Your task to perform on an android device: Do I have any events today? Image 0: 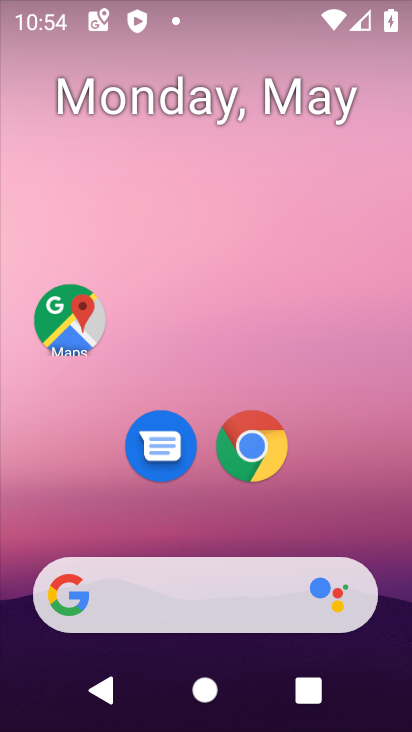
Step 0: drag from (251, 579) to (10, 32)
Your task to perform on an android device: Do I have any events today? Image 1: 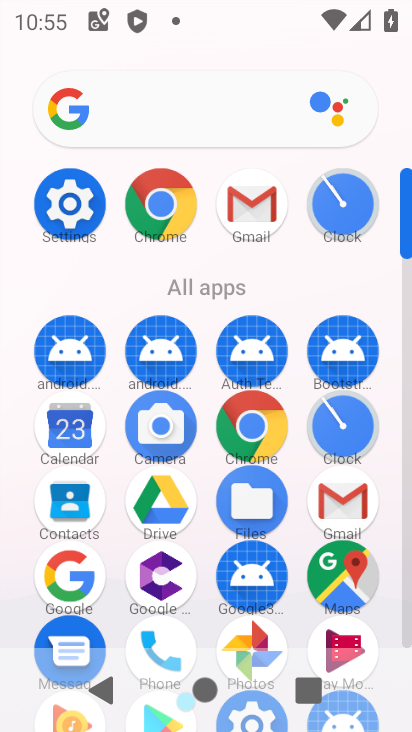
Step 1: click (71, 438)
Your task to perform on an android device: Do I have any events today? Image 2: 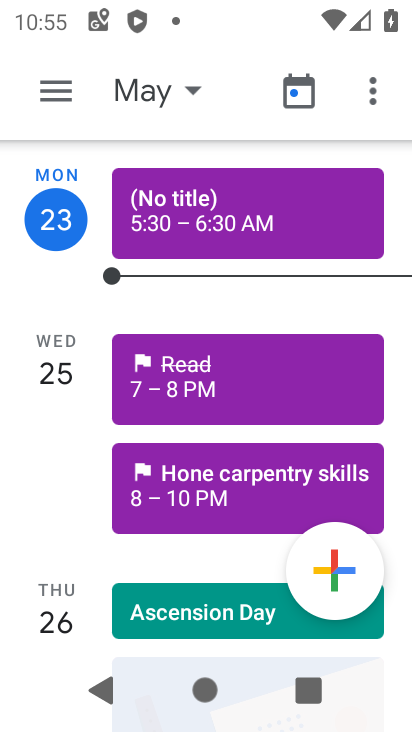
Step 2: task complete